Your task to perform on an android device: check android version Image 0: 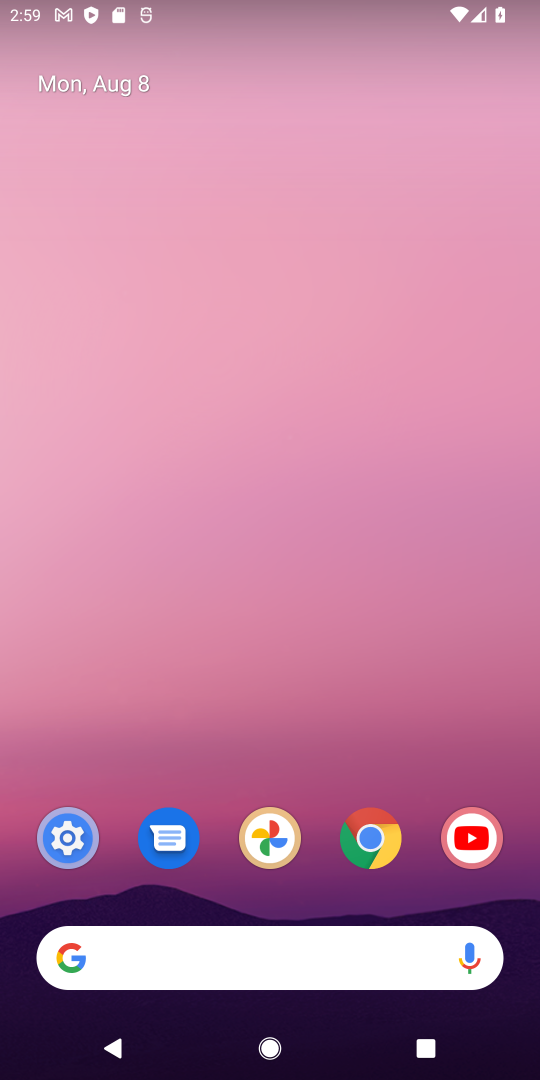
Step 0: drag from (257, 950) to (341, 303)
Your task to perform on an android device: check android version Image 1: 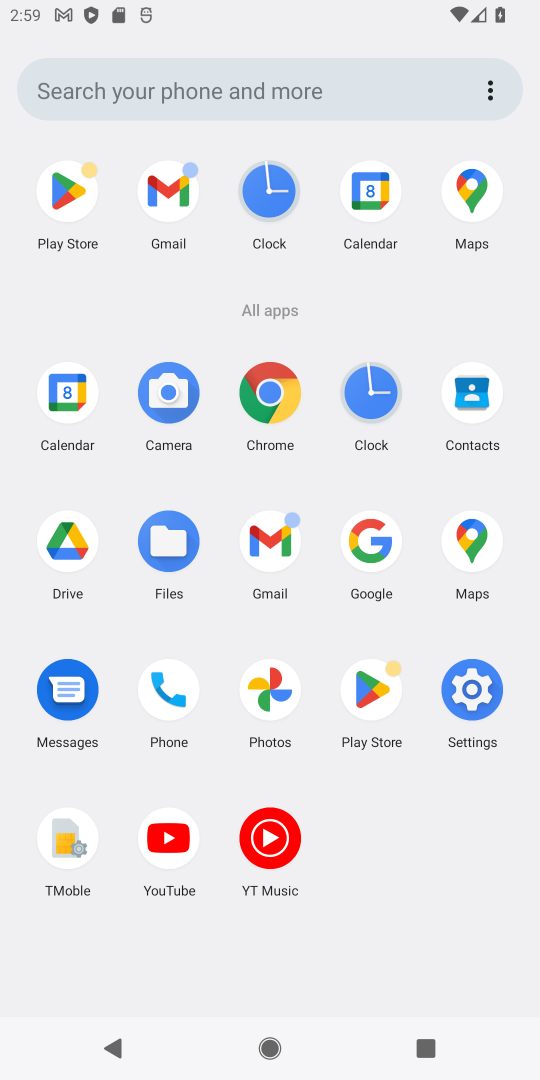
Step 1: click (468, 690)
Your task to perform on an android device: check android version Image 2: 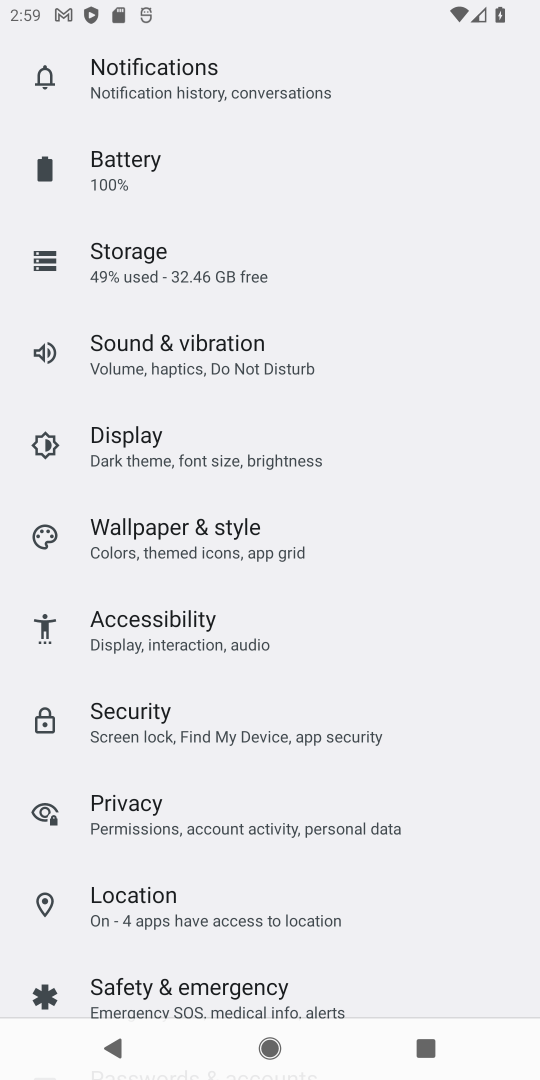
Step 2: drag from (208, 809) to (272, 644)
Your task to perform on an android device: check android version Image 3: 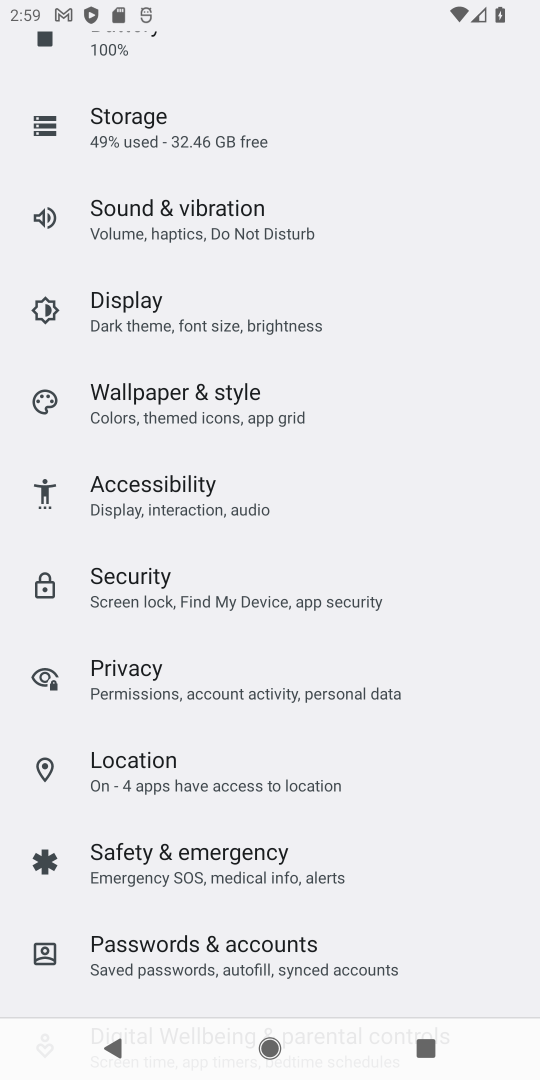
Step 3: drag from (205, 803) to (300, 647)
Your task to perform on an android device: check android version Image 4: 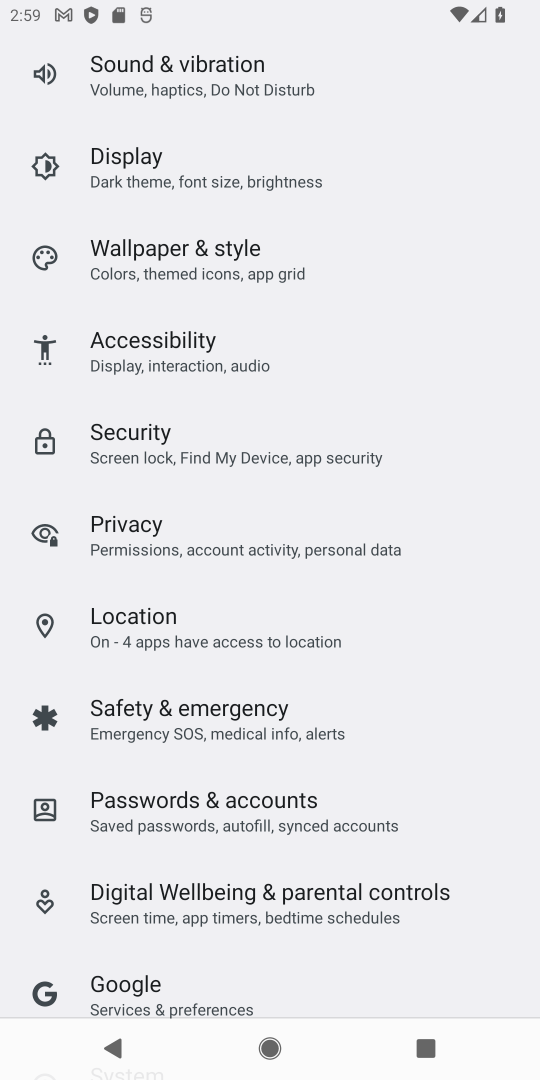
Step 4: drag from (238, 869) to (292, 745)
Your task to perform on an android device: check android version Image 5: 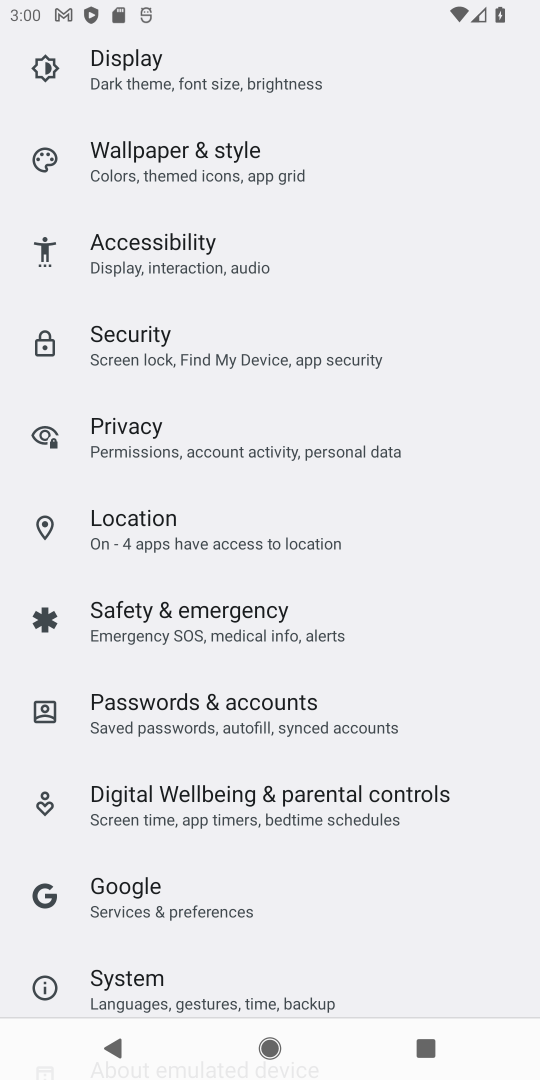
Step 5: drag from (197, 853) to (296, 703)
Your task to perform on an android device: check android version Image 6: 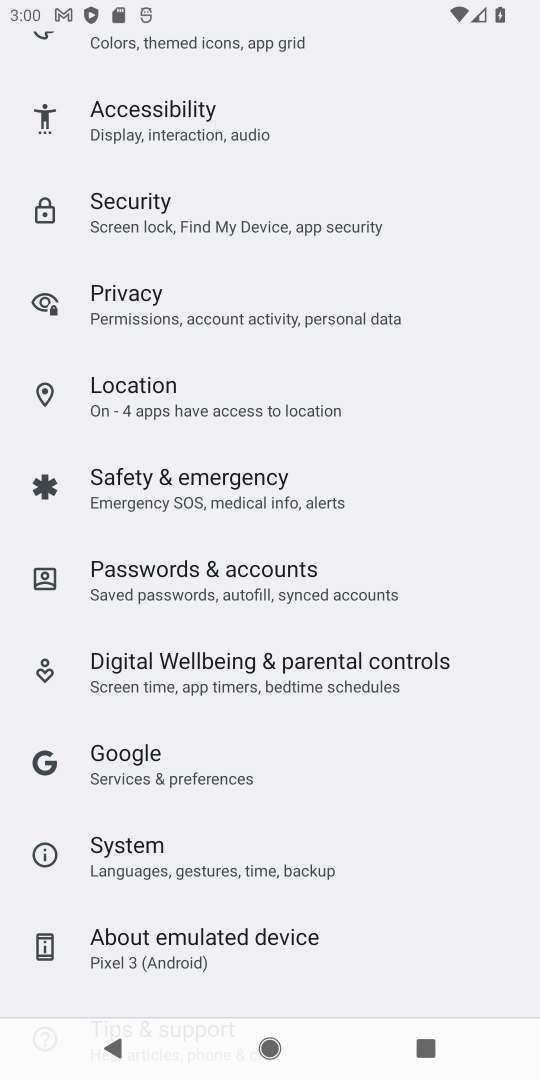
Step 6: drag from (210, 893) to (318, 739)
Your task to perform on an android device: check android version Image 7: 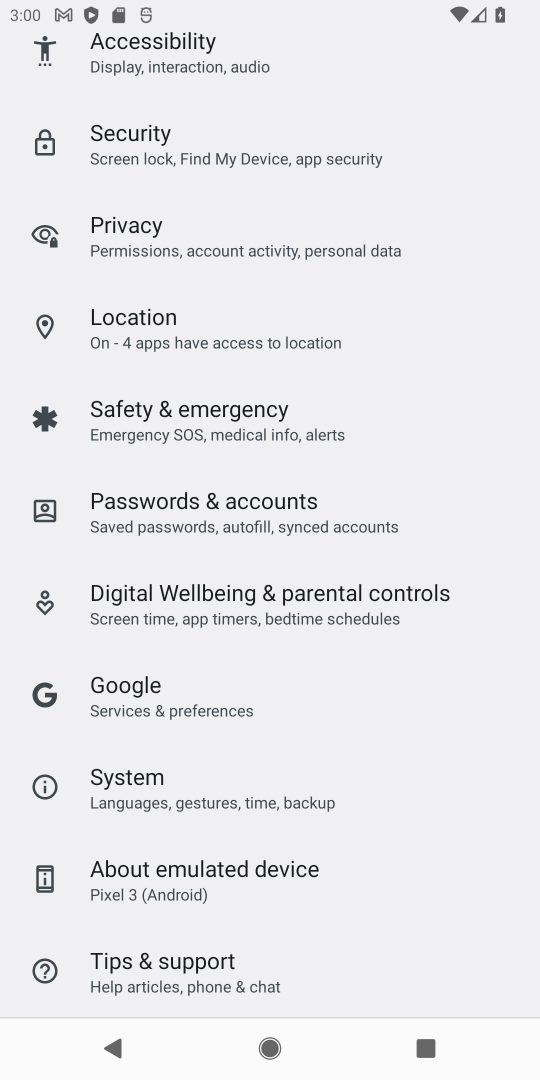
Step 7: click (267, 869)
Your task to perform on an android device: check android version Image 8: 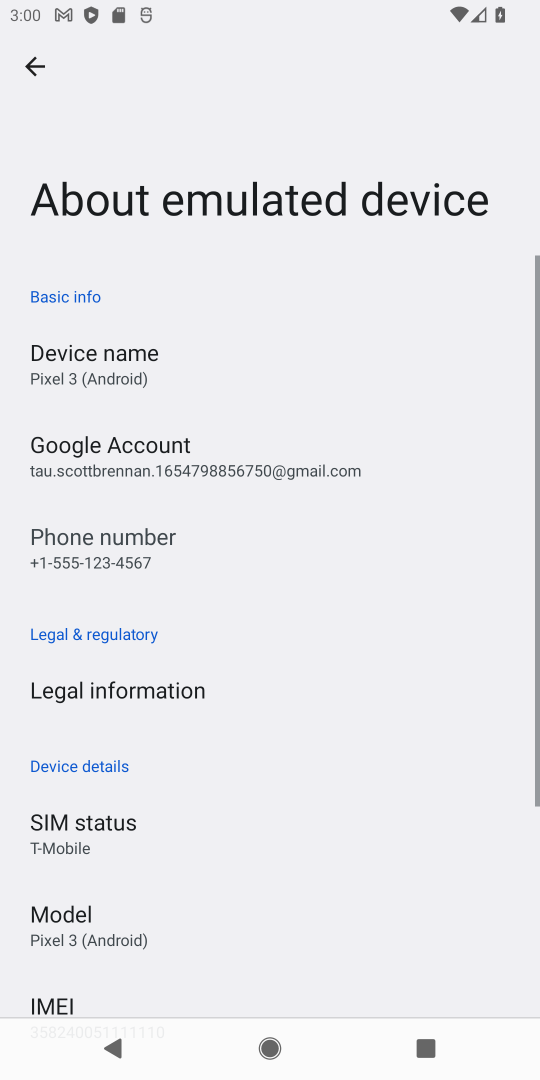
Step 8: drag from (198, 805) to (301, 623)
Your task to perform on an android device: check android version Image 9: 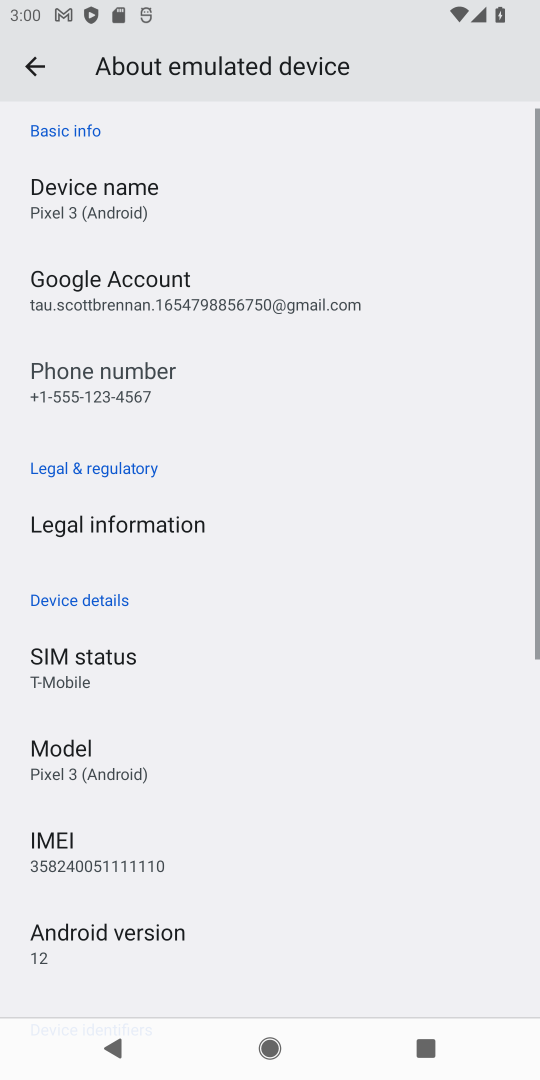
Step 9: drag from (207, 845) to (280, 686)
Your task to perform on an android device: check android version Image 10: 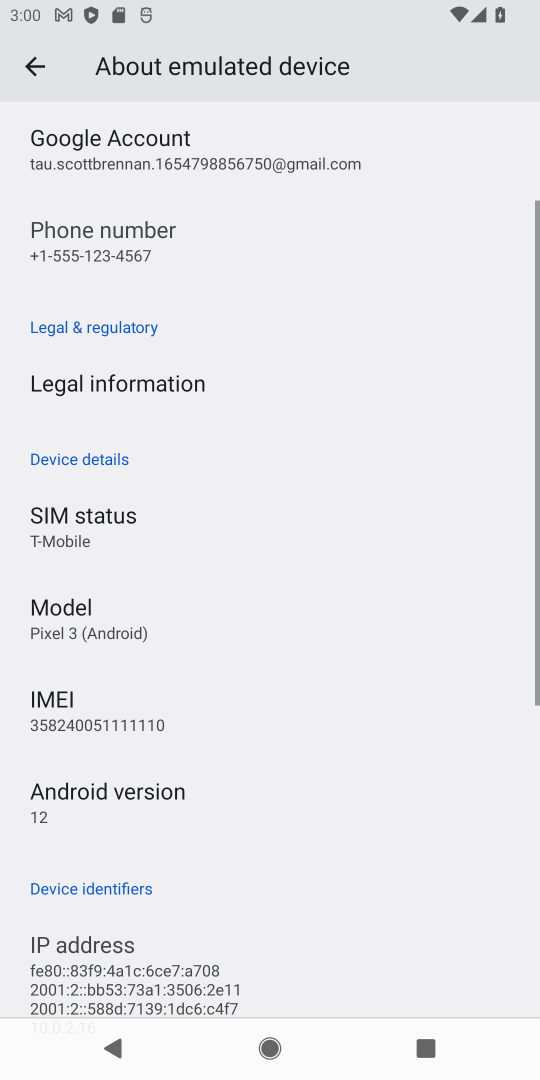
Step 10: click (169, 791)
Your task to perform on an android device: check android version Image 11: 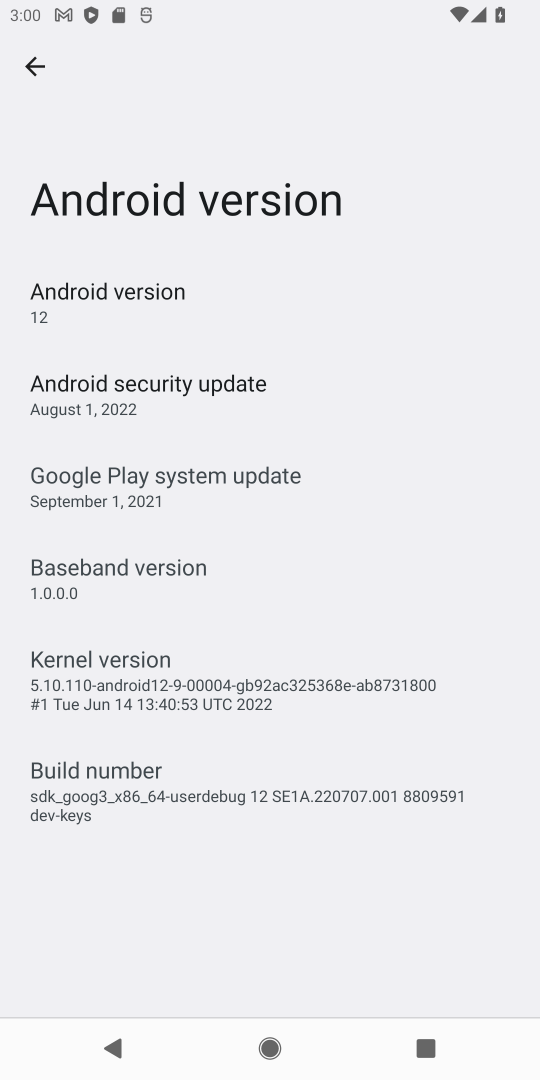
Step 11: task complete